Your task to perform on an android device: Open display settings Image 0: 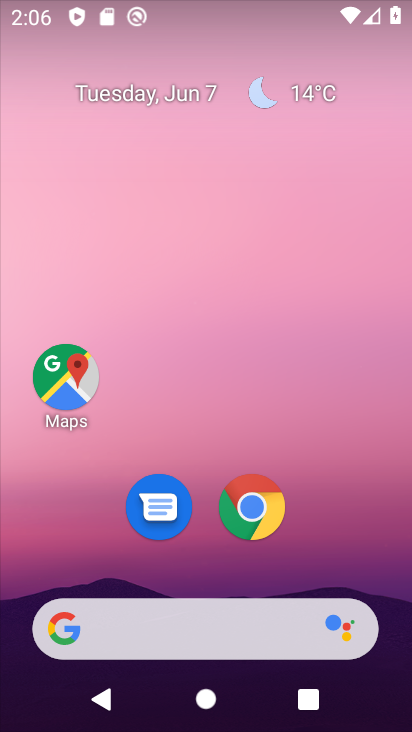
Step 0: drag from (339, 561) to (270, 138)
Your task to perform on an android device: Open display settings Image 1: 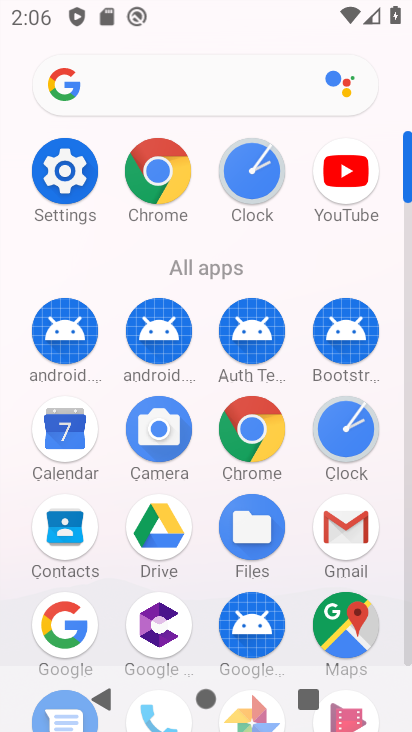
Step 1: click (58, 174)
Your task to perform on an android device: Open display settings Image 2: 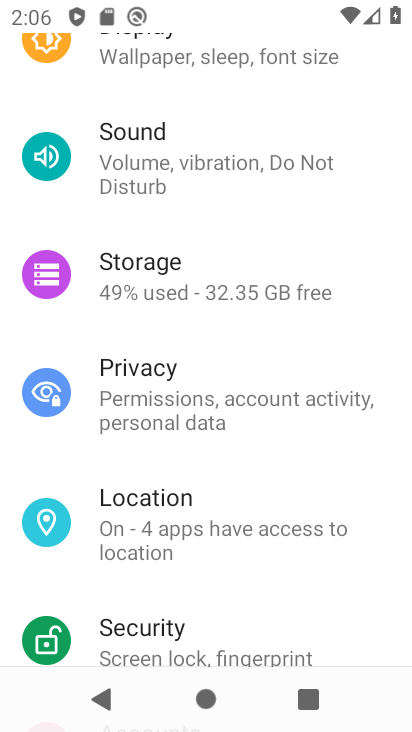
Step 2: drag from (256, 131) to (252, 436)
Your task to perform on an android device: Open display settings Image 3: 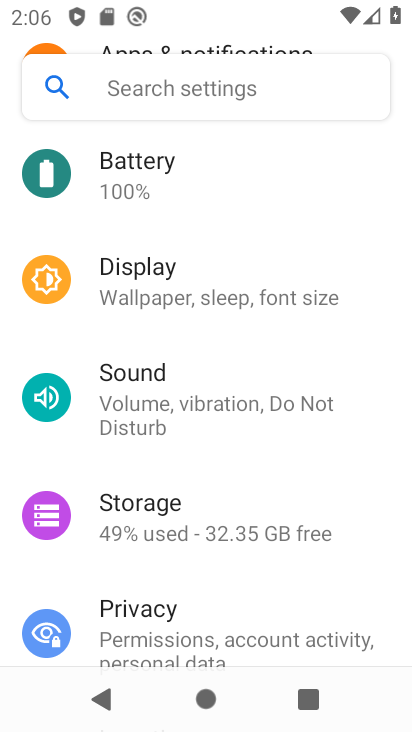
Step 3: click (202, 299)
Your task to perform on an android device: Open display settings Image 4: 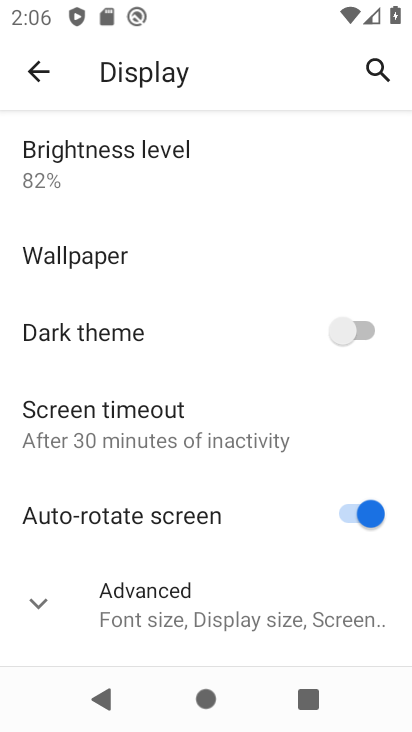
Step 4: task complete